Your task to perform on an android device: move an email to a new category in the gmail app Image 0: 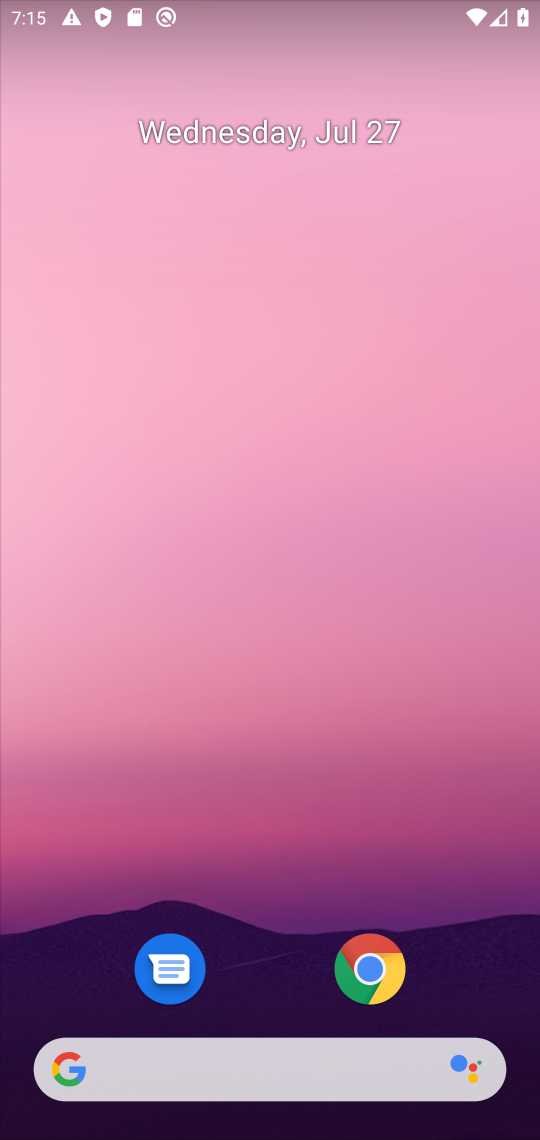
Step 0: drag from (253, 720) to (332, 161)
Your task to perform on an android device: move an email to a new category in the gmail app Image 1: 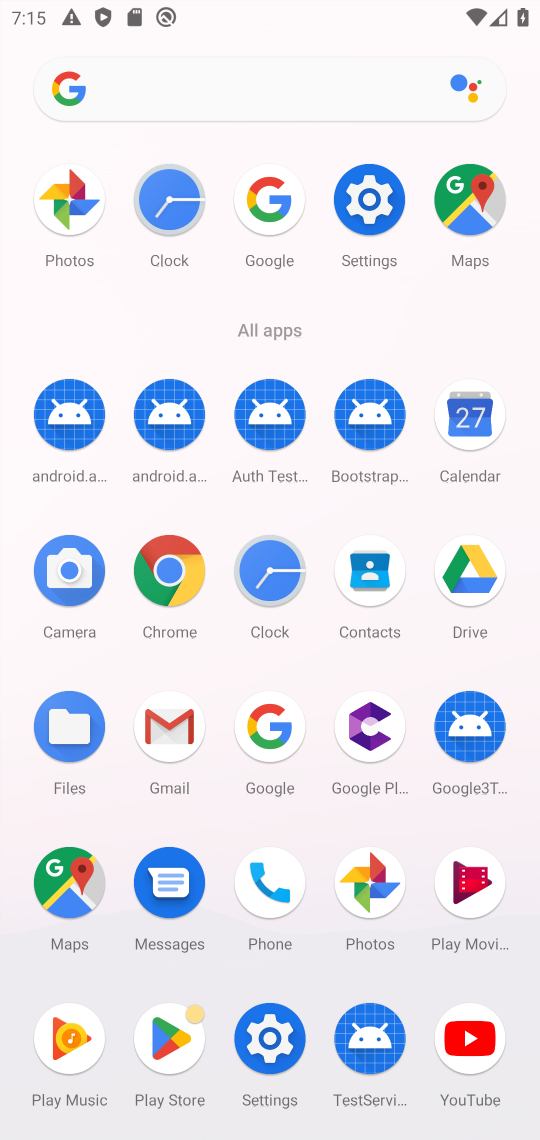
Step 1: click (146, 736)
Your task to perform on an android device: move an email to a new category in the gmail app Image 2: 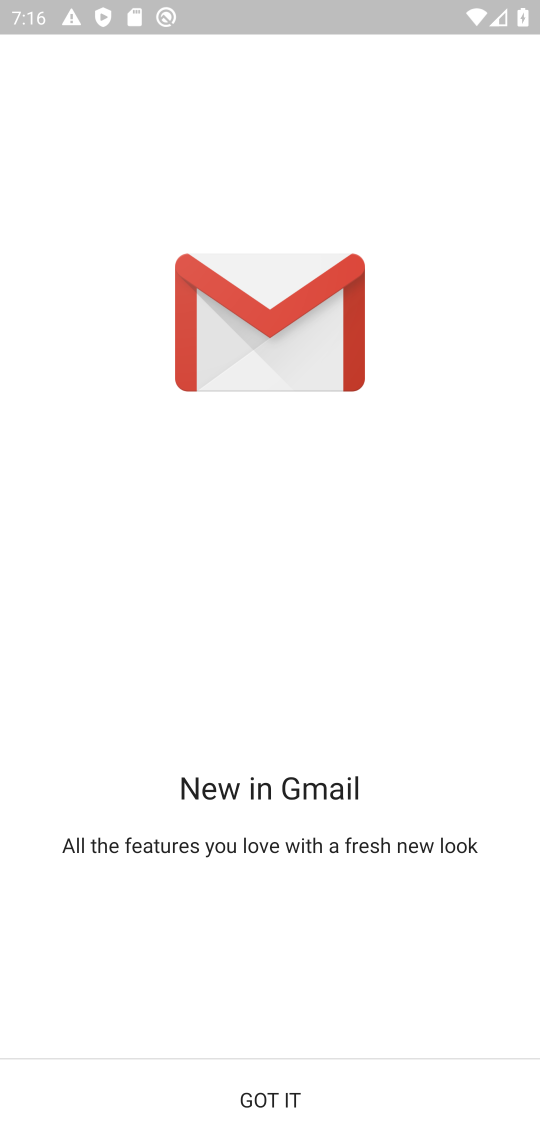
Step 2: click (275, 1106)
Your task to perform on an android device: move an email to a new category in the gmail app Image 3: 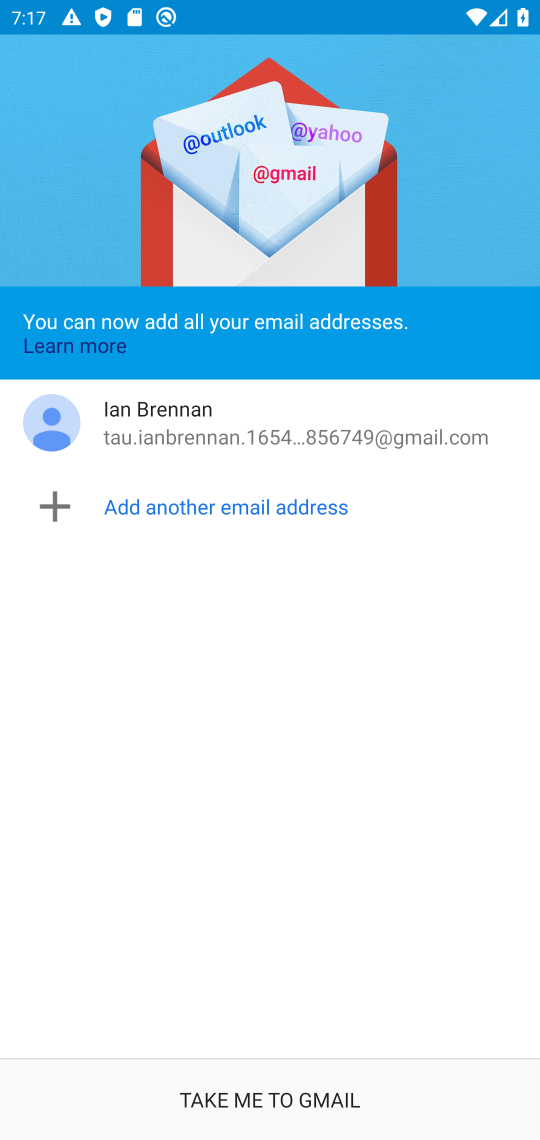
Step 3: click (334, 1078)
Your task to perform on an android device: move an email to a new category in the gmail app Image 4: 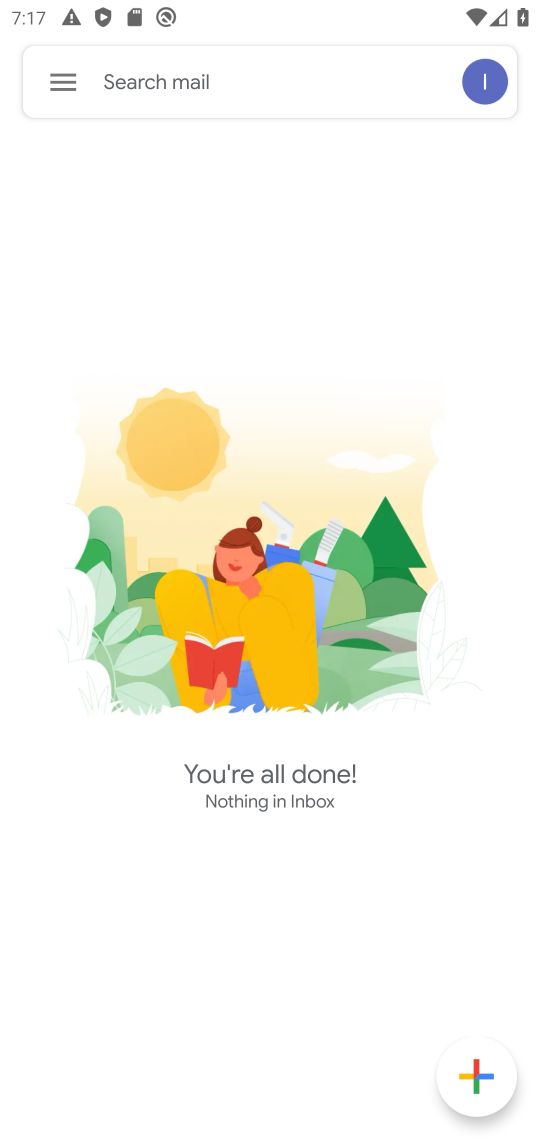
Step 4: click (50, 98)
Your task to perform on an android device: move an email to a new category in the gmail app Image 5: 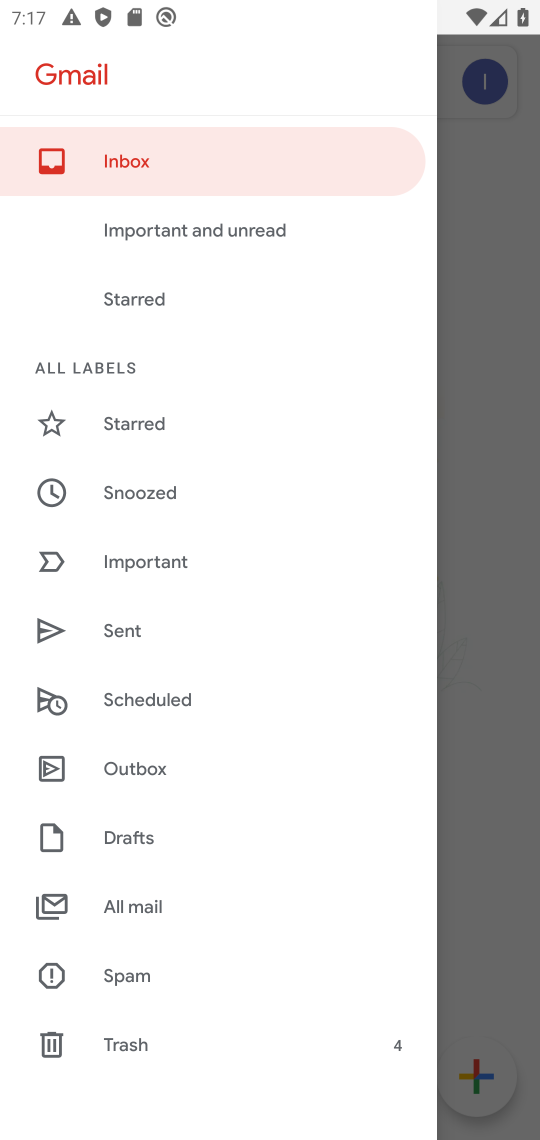
Step 5: click (162, 902)
Your task to perform on an android device: move an email to a new category in the gmail app Image 6: 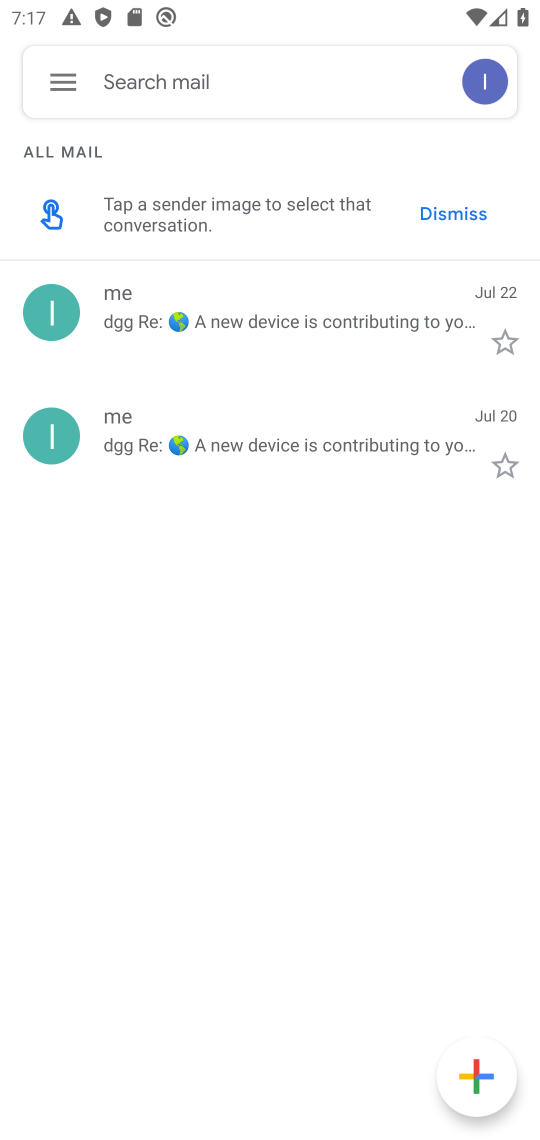
Step 6: click (377, 316)
Your task to perform on an android device: move an email to a new category in the gmail app Image 7: 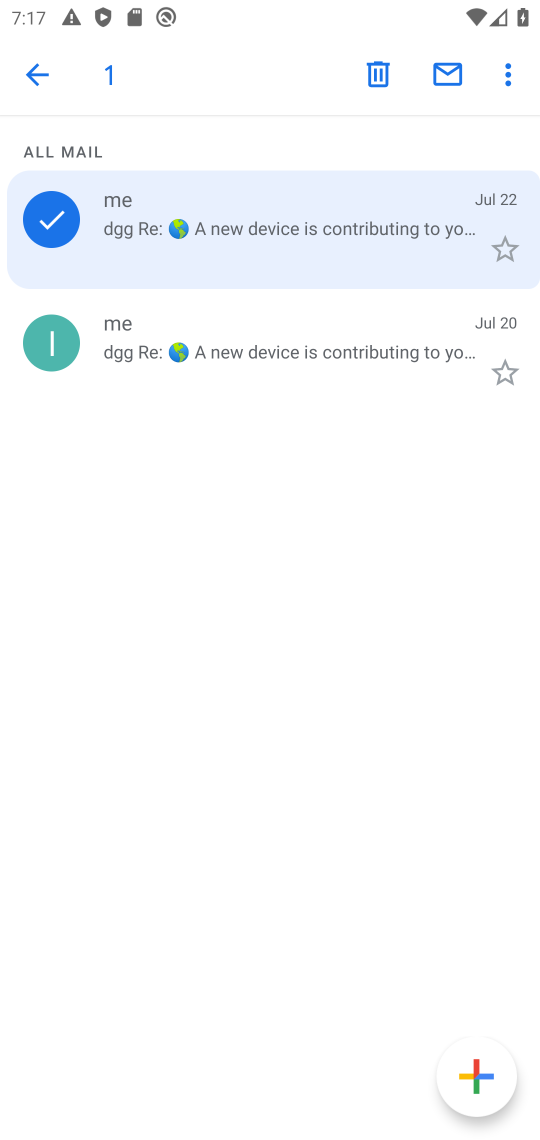
Step 7: click (523, 76)
Your task to perform on an android device: move an email to a new category in the gmail app Image 8: 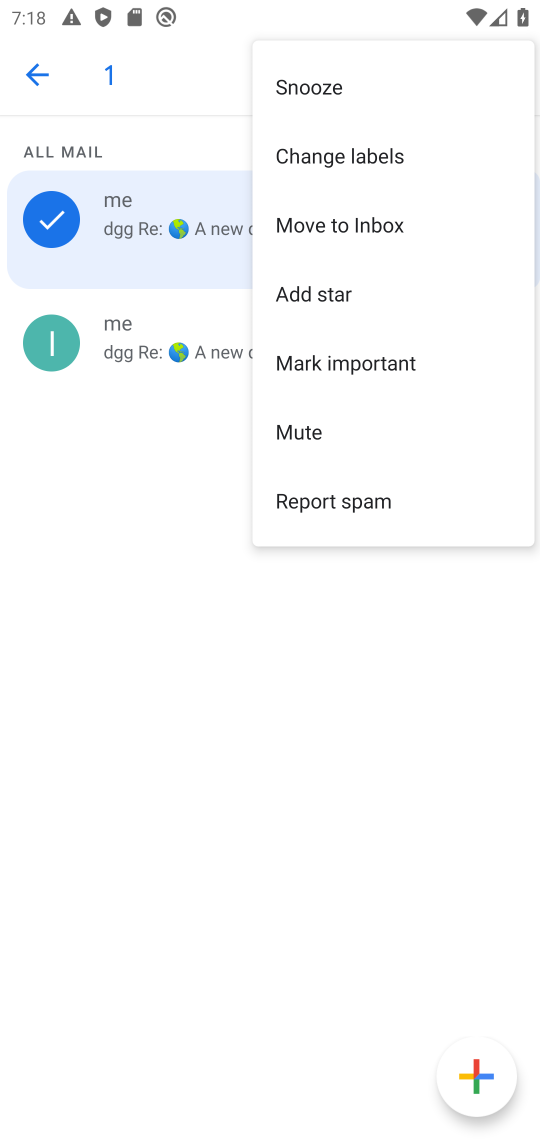
Step 8: click (390, 232)
Your task to perform on an android device: move an email to a new category in the gmail app Image 9: 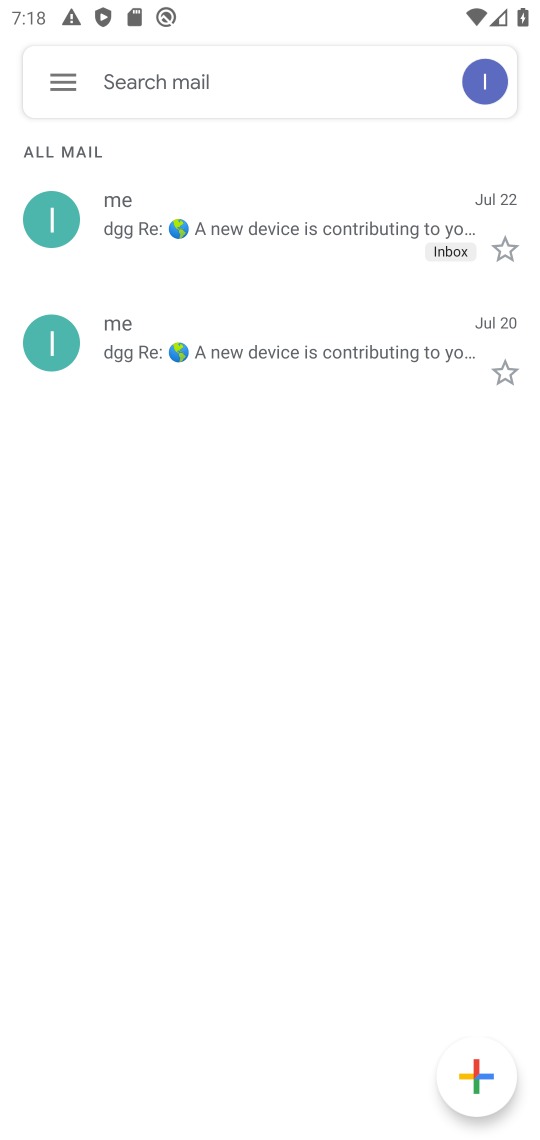
Step 9: task complete